Your task to perform on an android device: set the timer Image 0: 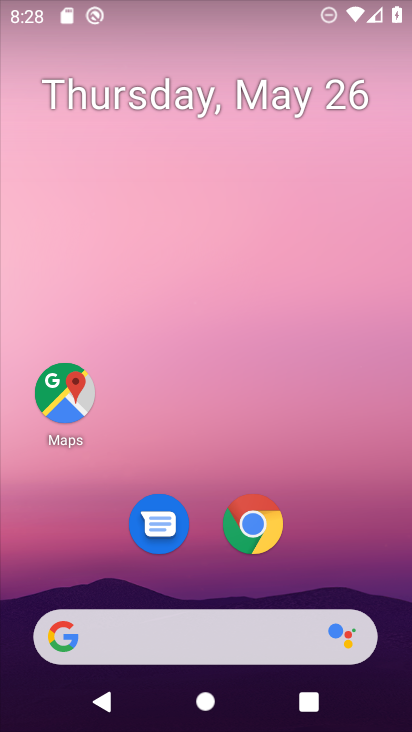
Step 0: drag from (308, 501) to (286, 44)
Your task to perform on an android device: set the timer Image 1: 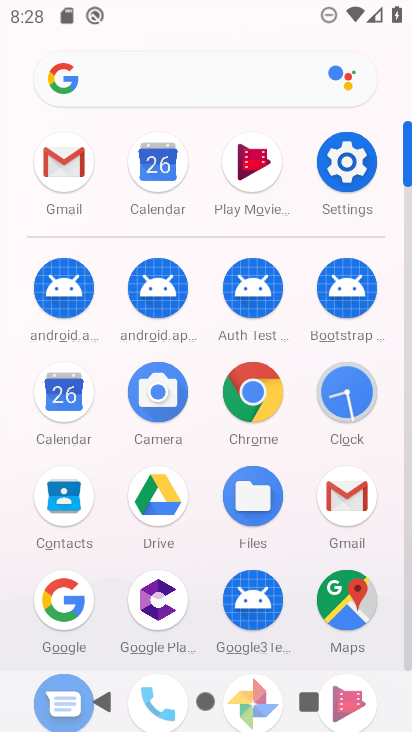
Step 1: click (336, 395)
Your task to perform on an android device: set the timer Image 2: 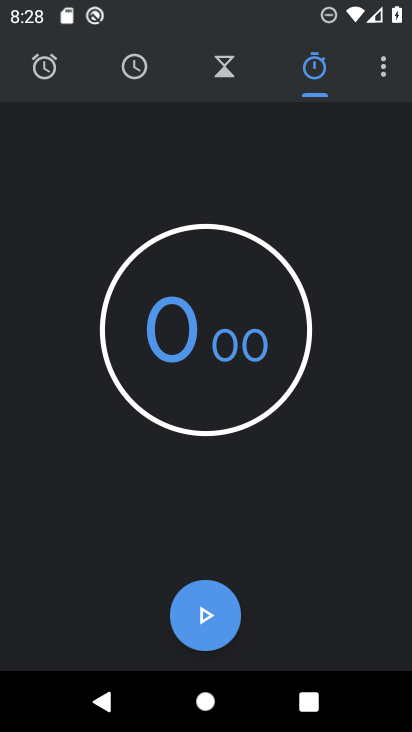
Step 2: click (222, 74)
Your task to perform on an android device: set the timer Image 3: 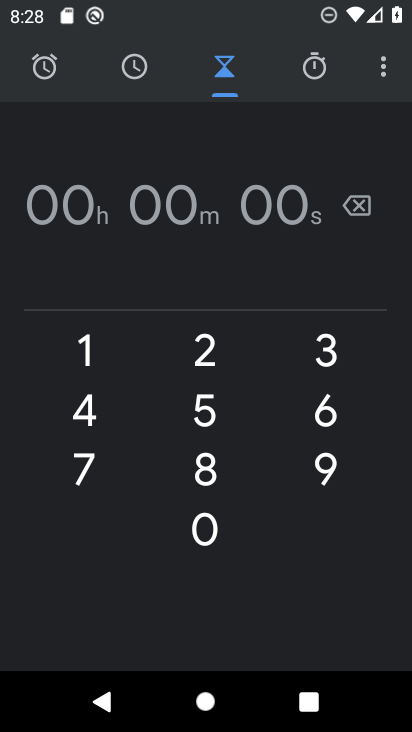
Step 3: click (93, 338)
Your task to perform on an android device: set the timer Image 4: 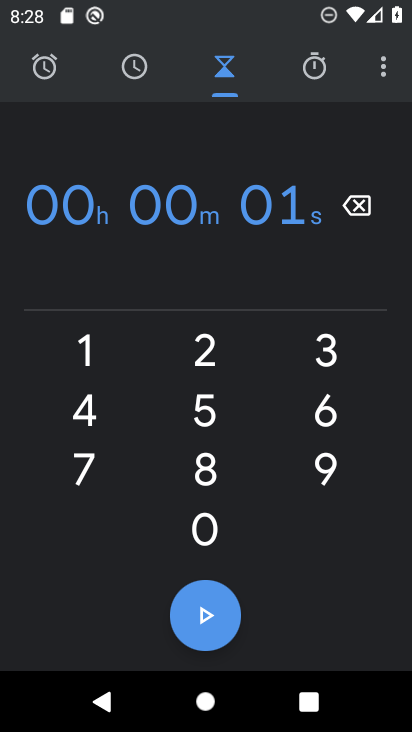
Step 4: click (75, 410)
Your task to perform on an android device: set the timer Image 5: 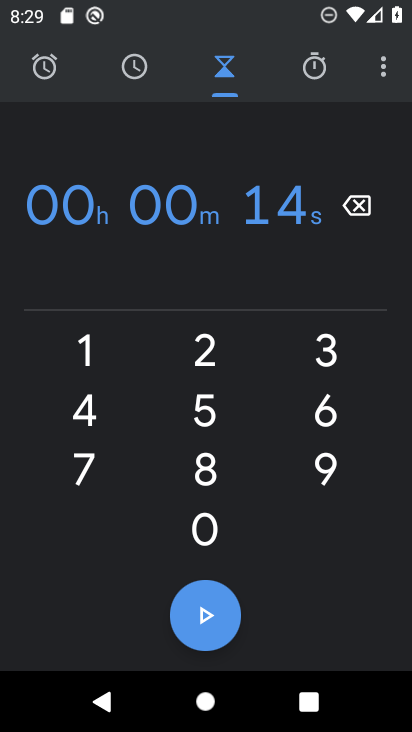
Step 5: task complete